Your task to perform on an android device: change the clock display to show seconds Image 0: 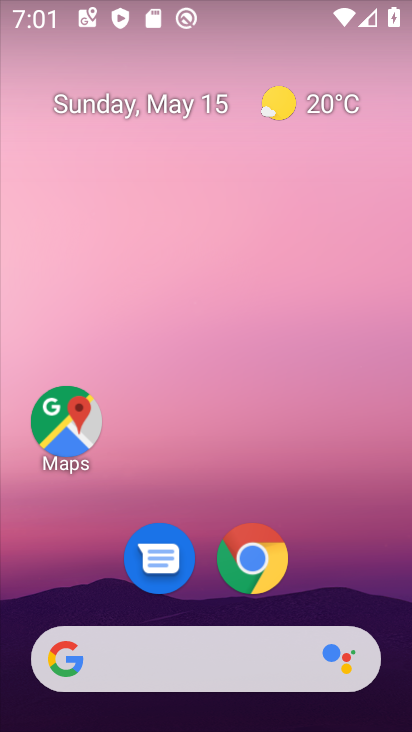
Step 0: drag from (347, 515) to (271, 188)
Your task to perform on an android device: change the clock display to show seconds Image 1: 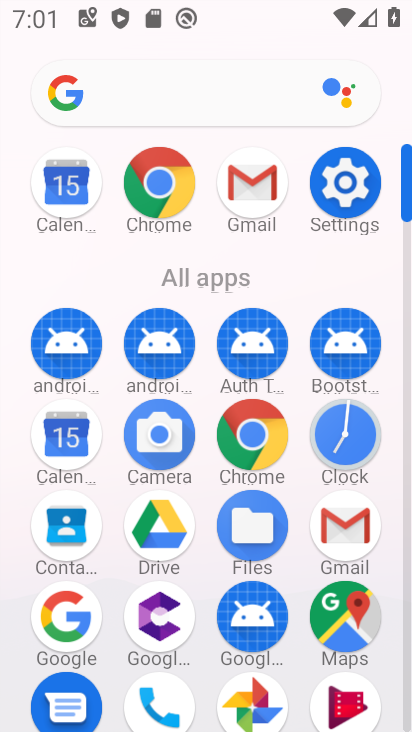
Step 1: click (331, 440)
Your task to perform on an android device: change the clock display to show seconds Image 2: 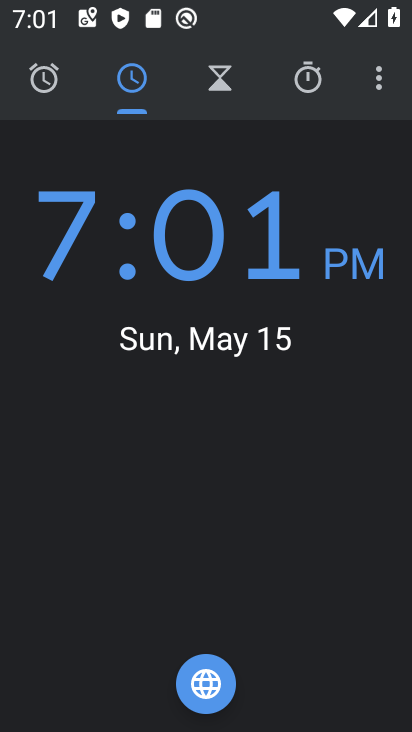
Step 2: click (372, 82)
Your task to perform on an android device: change the clock display to show seconds Image 3: 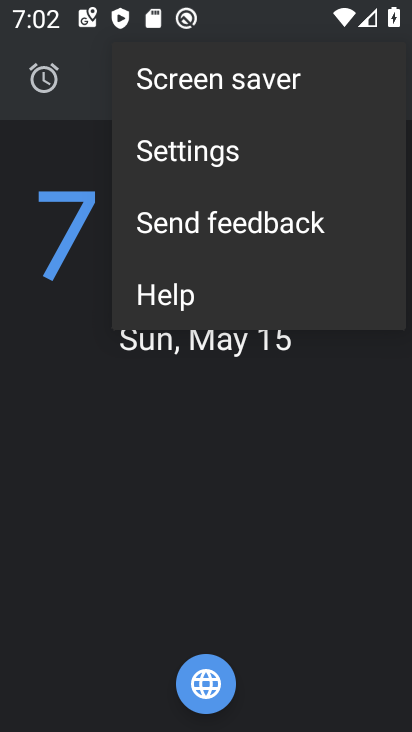
Step 3: click (210, 153)
Your task to perform on an android device: change the clock display to show seconds Image 4: 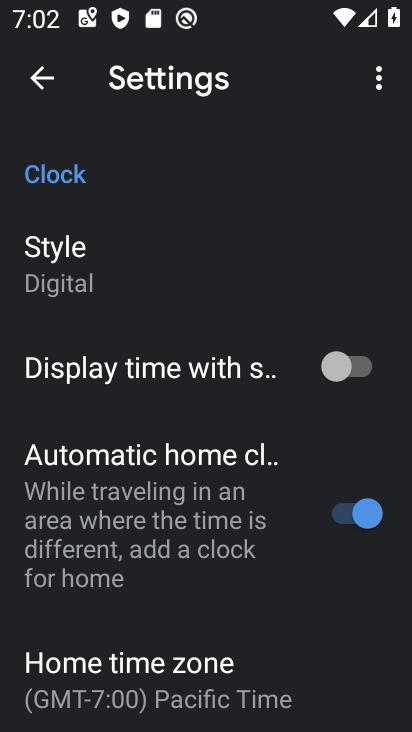
Step 4: click (334, 373)
Your task to perform on an android device: change the clock display to show seconds Image 5: 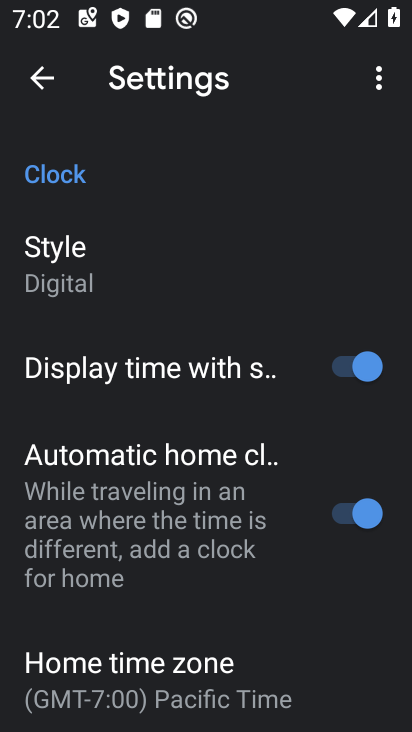
Step 5: task complete